Your task to perform on an android device: delete a single message in the gmail app Image 0: 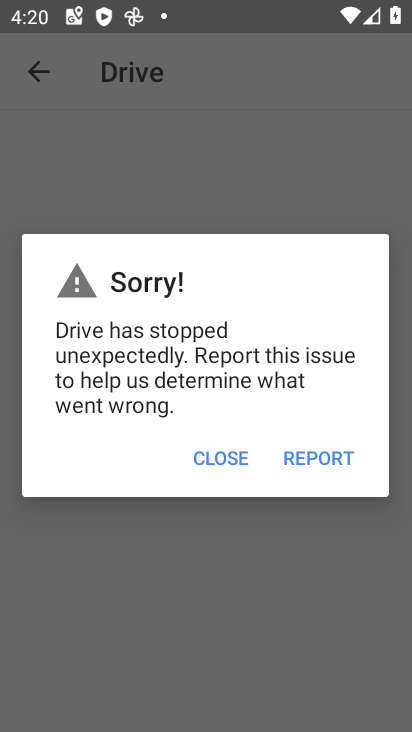
Step 0: press home button
Your task to perform on an android device: delete a single message in the gmail app Image 1: 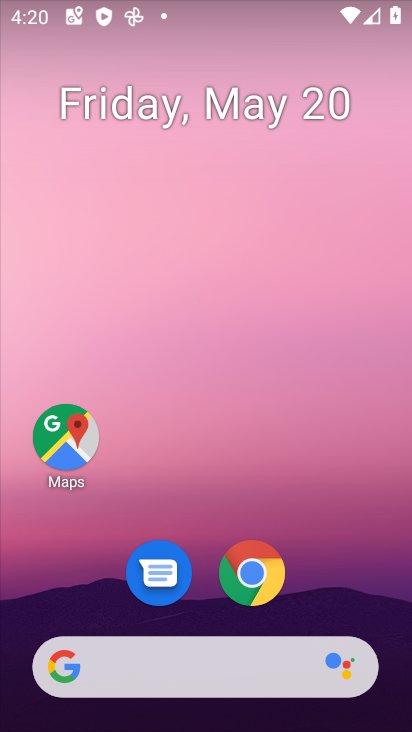
Step 1: drag from (393, 619) to (308, 87)
Your task to perform on an android device: delete a single message in the gmail app Image 2: 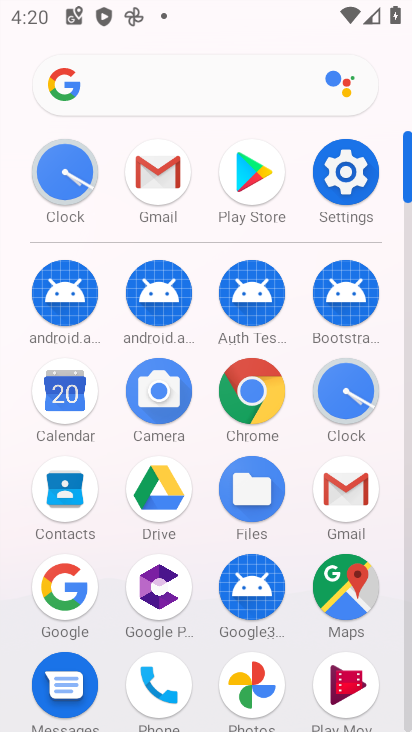
Step 2: click (407, 710)
Your task to perform on an android device: delete a single message in the gmail app Image 3: 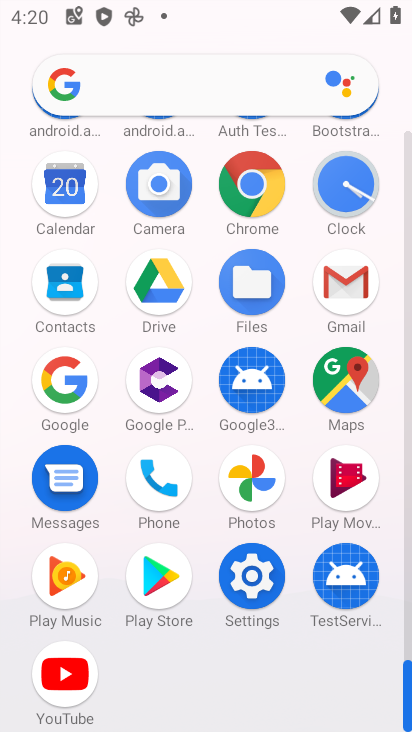
Step 3: click (345, 281)
Your task to perform on an android device: delete a single message in the gmail app Image 4: 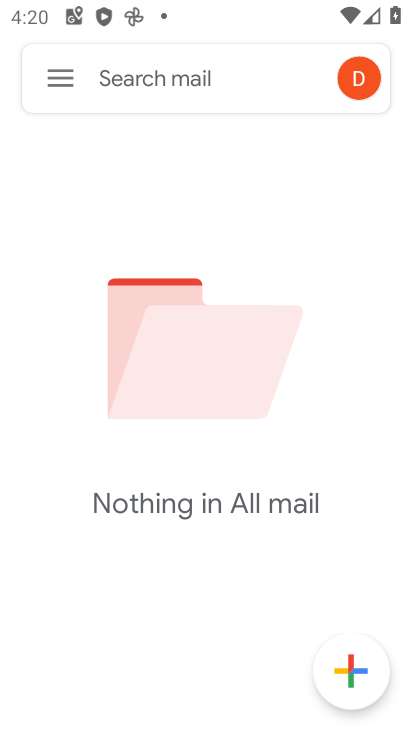
Step 4: click (59, 73)
Your task to perform on an android device: delete a single message in the gmail app Image 5: 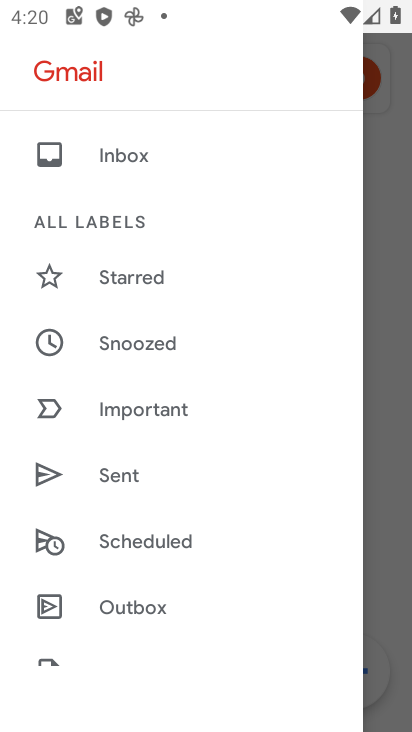
Step 5: drag from (196, 562) to (202, 200)
Your task to perform on an android device: delete a single message in the gmail app Image 6: 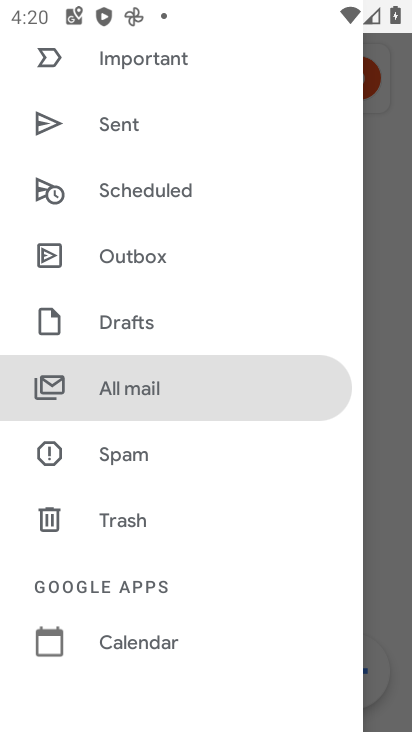
Step 6: click (155, 391)
Your task to perform on an android device: delete a single message in the gmail app Image 7: 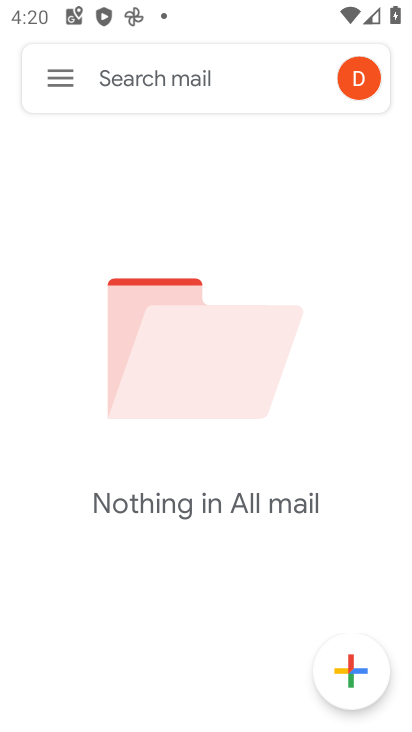
Step 7: task complete